Your task to perform on an android device: change the clock display to digital Image 0: 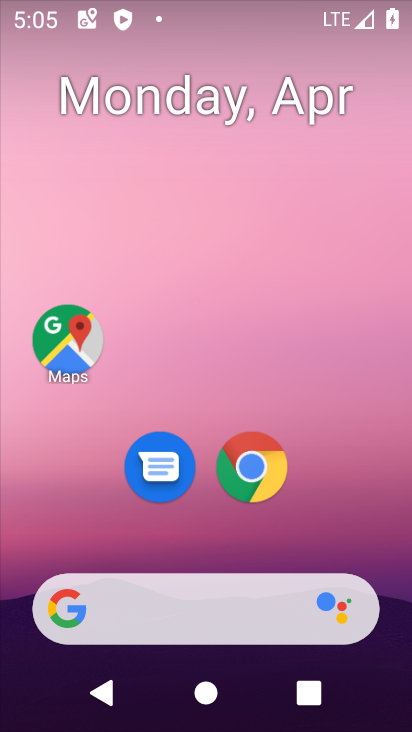
Step 0: drag from (365, 534) to (378, 49)
Your task to perform on an android device: change the clock display to digital Image 1: 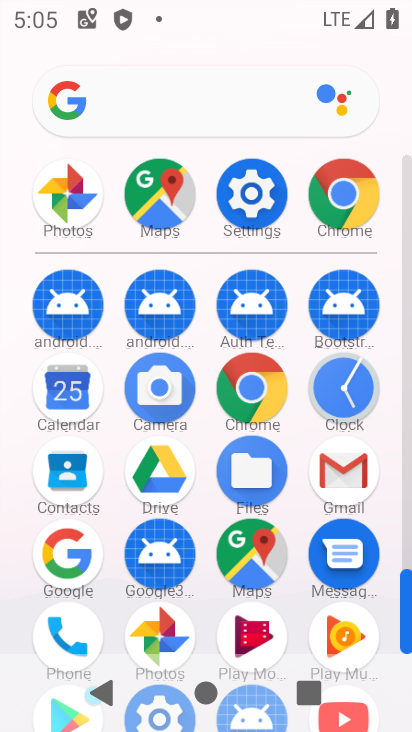
Step 1: click (345, 395)
Your task to perform on an android device: change the clock display to digital Image 2: 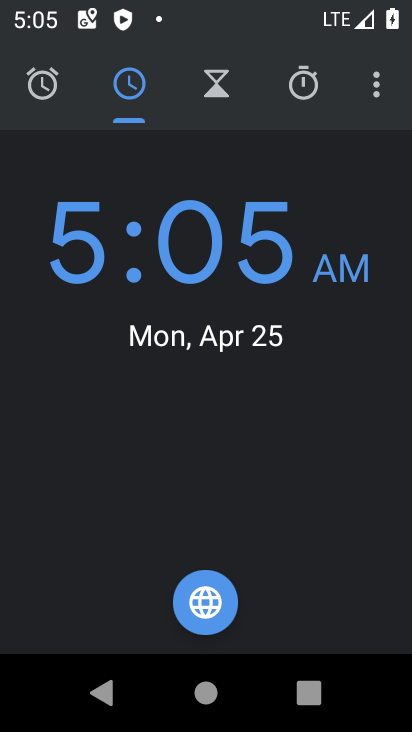
Step 2: click (374, 83)
Your task to perform on an android device: change the clock display to digital Image 3: 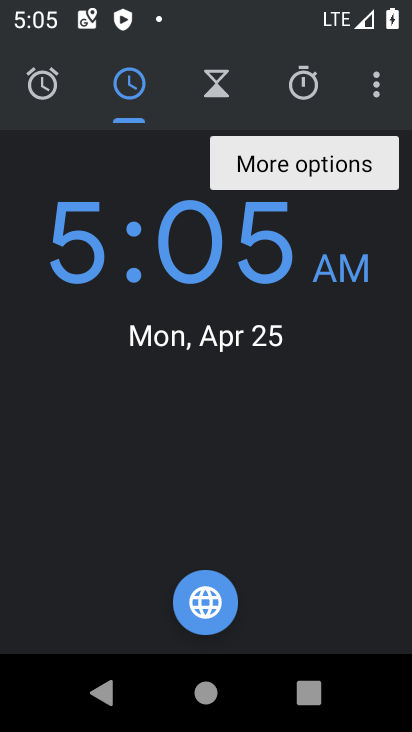
Step 3: click (376, 89)
Your task to perform on an android device: change the clock display to digital Image 4: 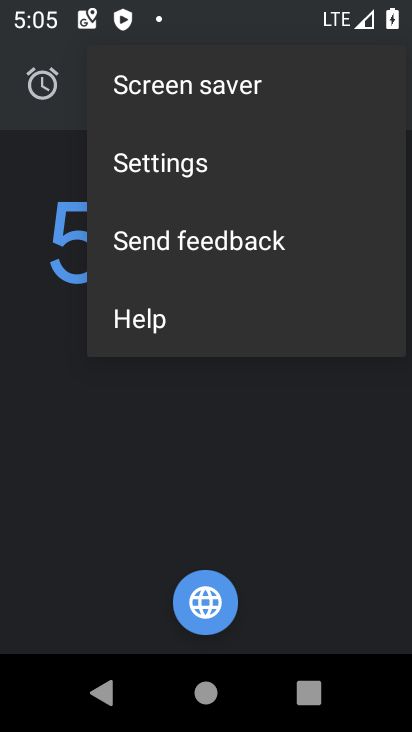
Step 4: click (280, 172)
Your task to perform on an android device: change the clock display to digital Image 5: 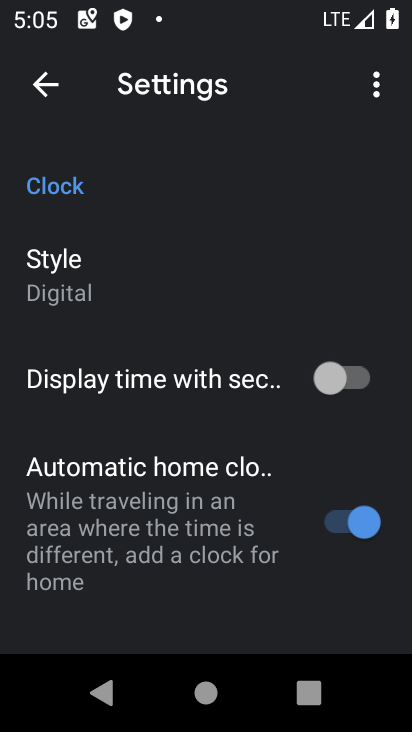
Step 5: task complete